Your task to perform on an android device: change the clock display to analog Image 0: 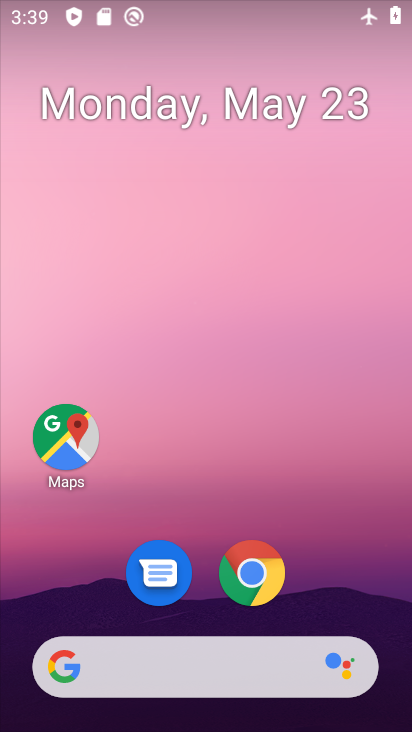
Step 0: drag from (229, 719) to (203, 4)
Your task to perform on an android device: change the clock display to analog Image 1: 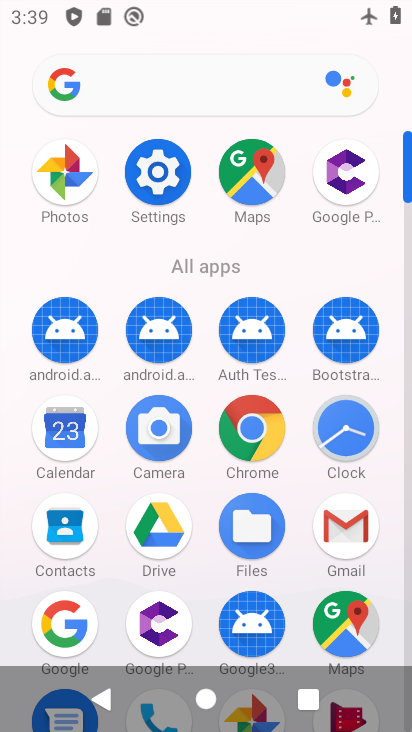
Step 1: click (353, 437)
Your task to perform on an android device: change the clock display to analog Image 2: 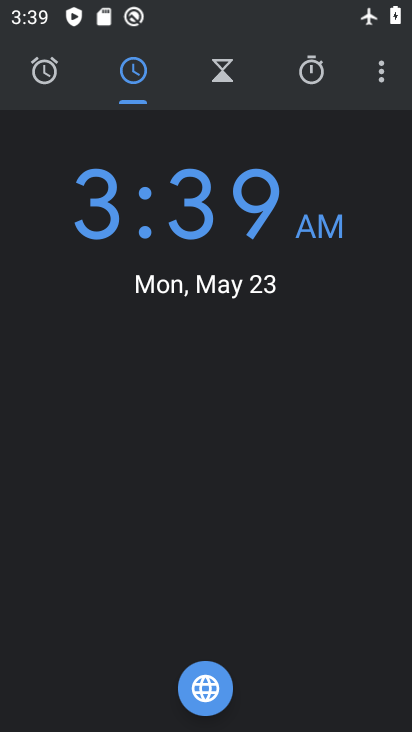
Step 2: click (382, 79)
Your task to perform on an android device: change the clock display to analog Image 3: 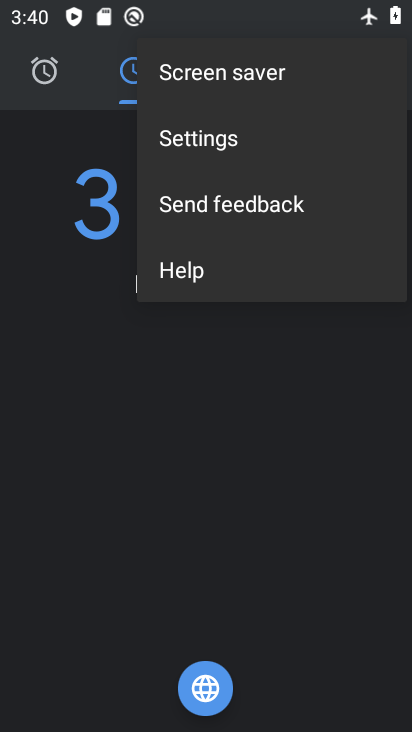
Step 3: click (211, 138)
Your task to perform on an android device: change the clock display to analog Image 4: 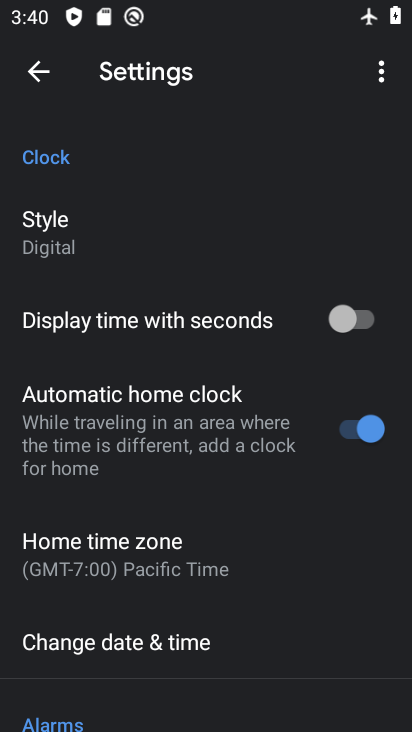
Step 4: click (56, 236)
Your task to perform on an android device: change the clock display to analog Image 5: 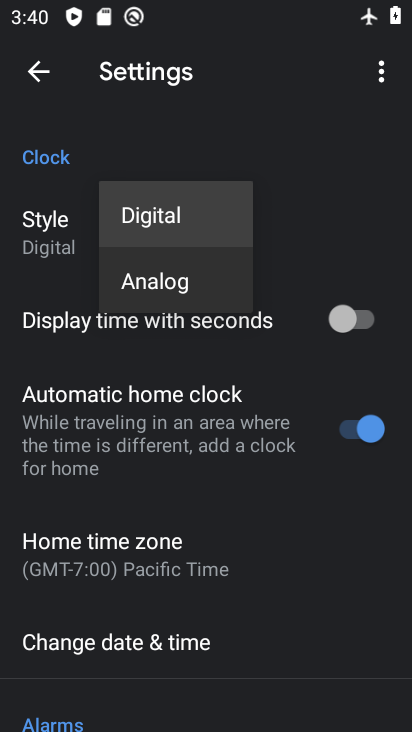
Step 5: click (160, 282)
Your task to perform on an android device: change the clock display to analog Image 6: 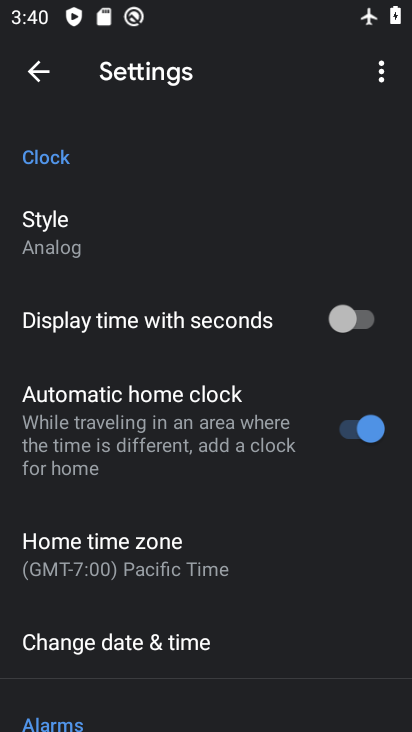
Step 6: task complete